Your task to perform on an android device: Open battery settings Image 0: 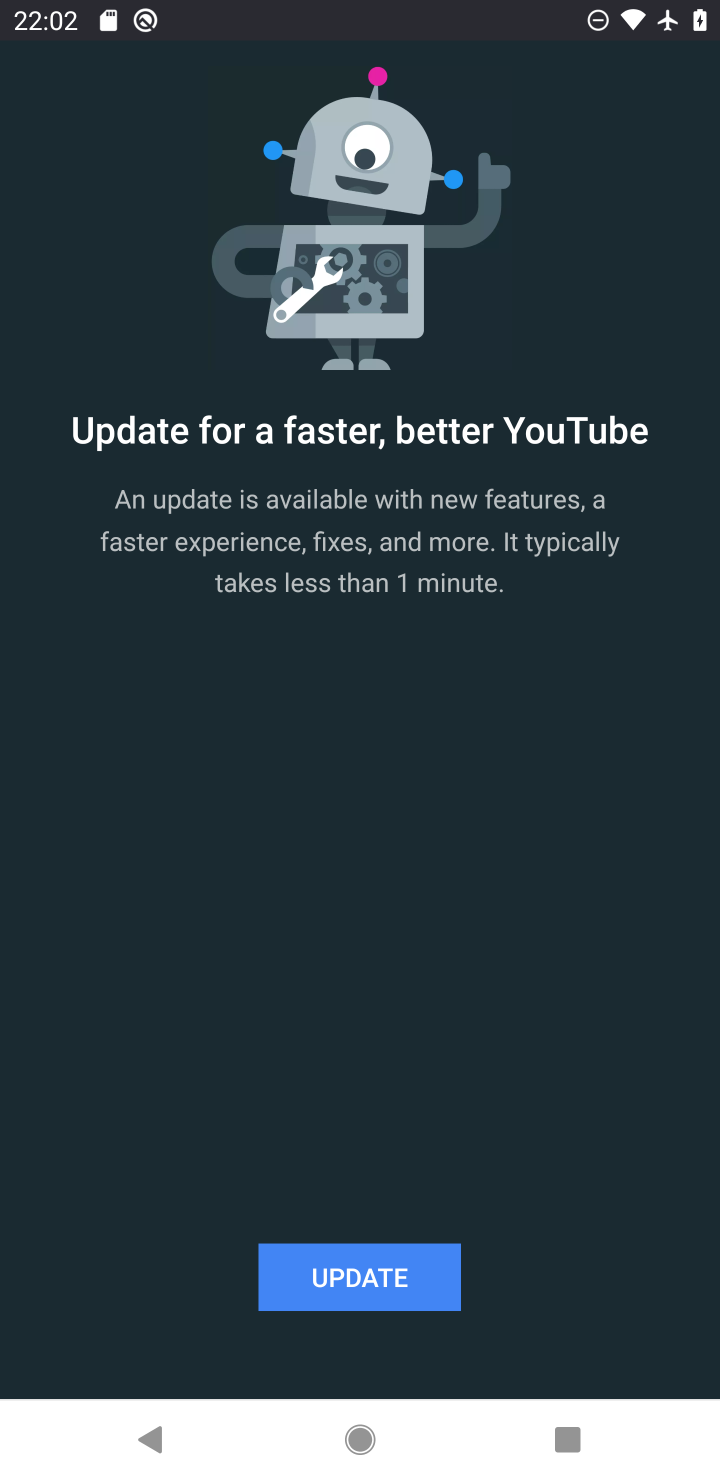
Step 0: press home button
Your task to perform on an android device: Open battery settings Image 1: 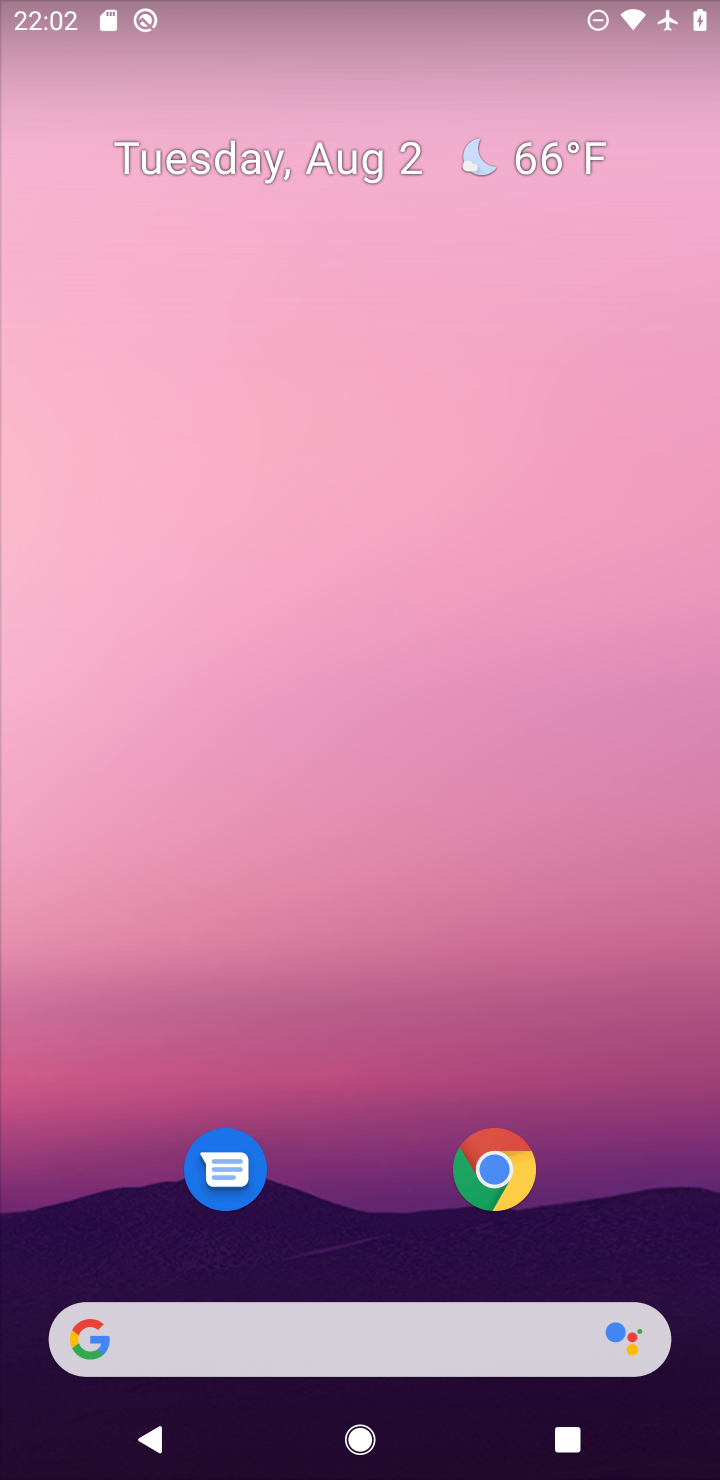
Step 1: drag from (354, 1230) to (374, 270)
Your task to perform on an android device: Open battery settings Image 2: 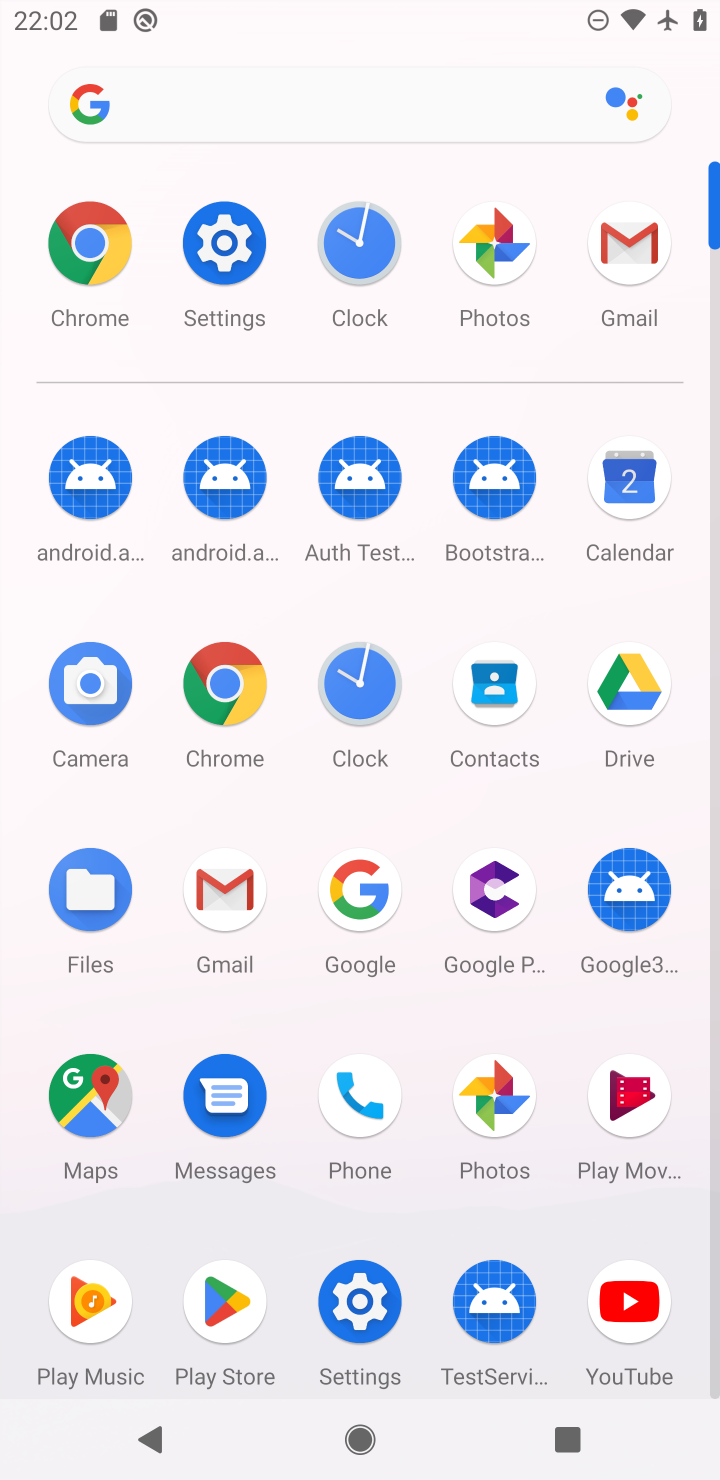
Step 2: click (222, 244)
Your task to perform on an android device: Open battery settings Image 3: 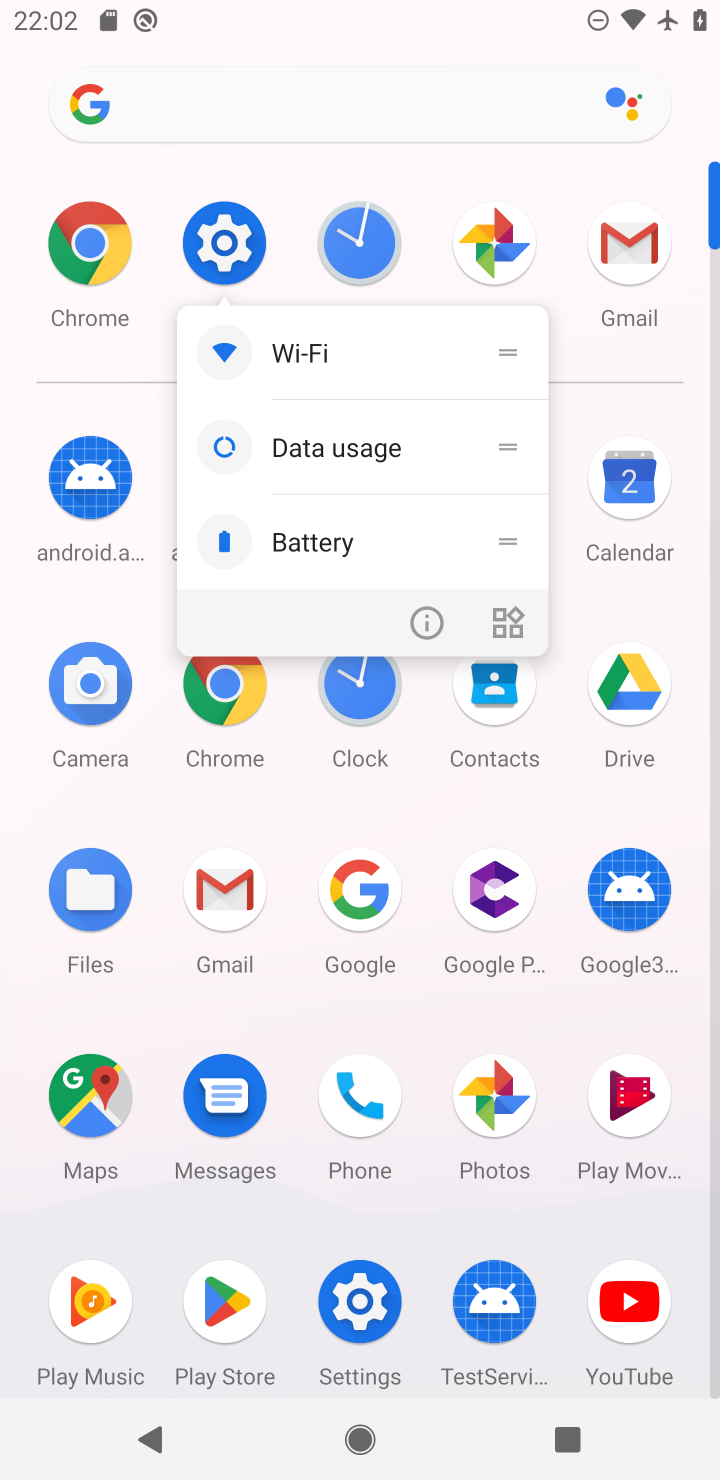
Step 3: click (224, 250)
Your task to perform on an android device: Open battery settings Image 4: 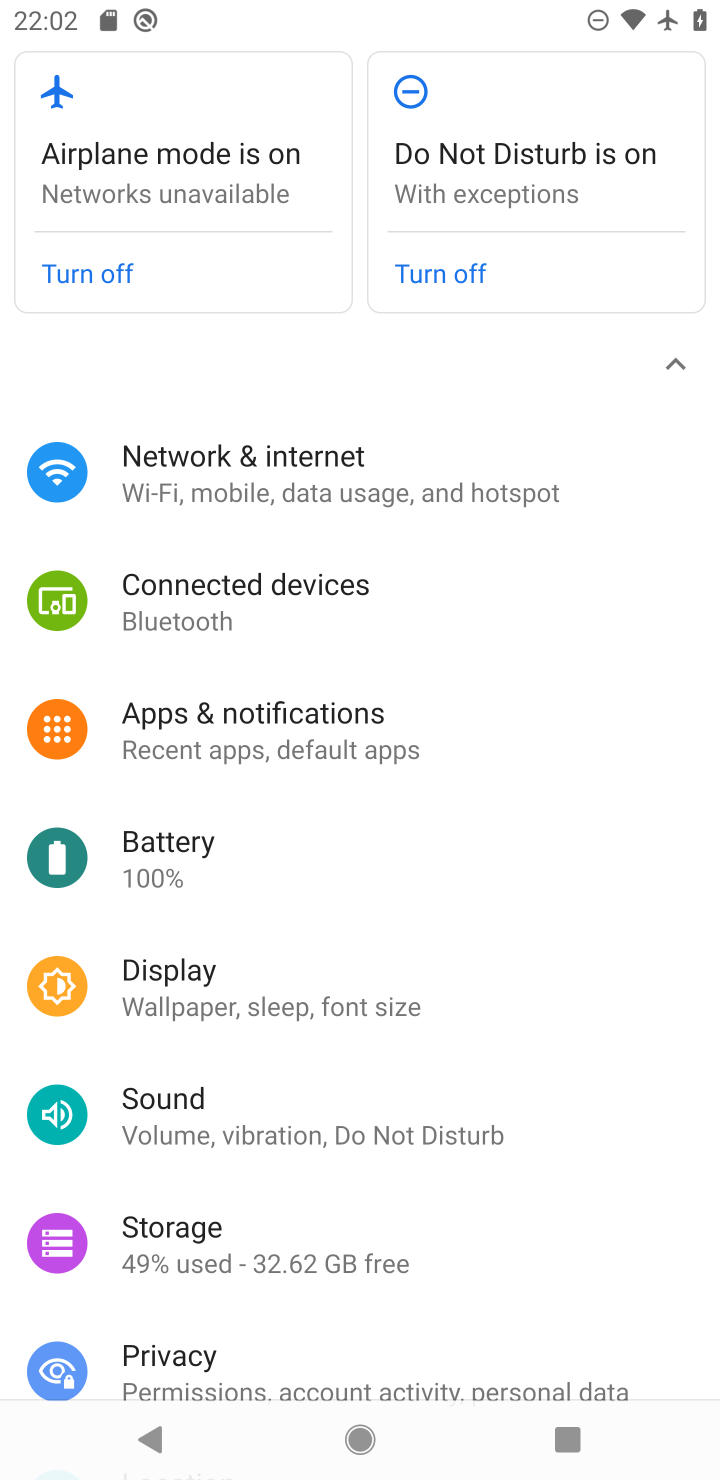
Step 4: click (162, 854)
Your task to perform on an android device: Open battery settings Image 5: 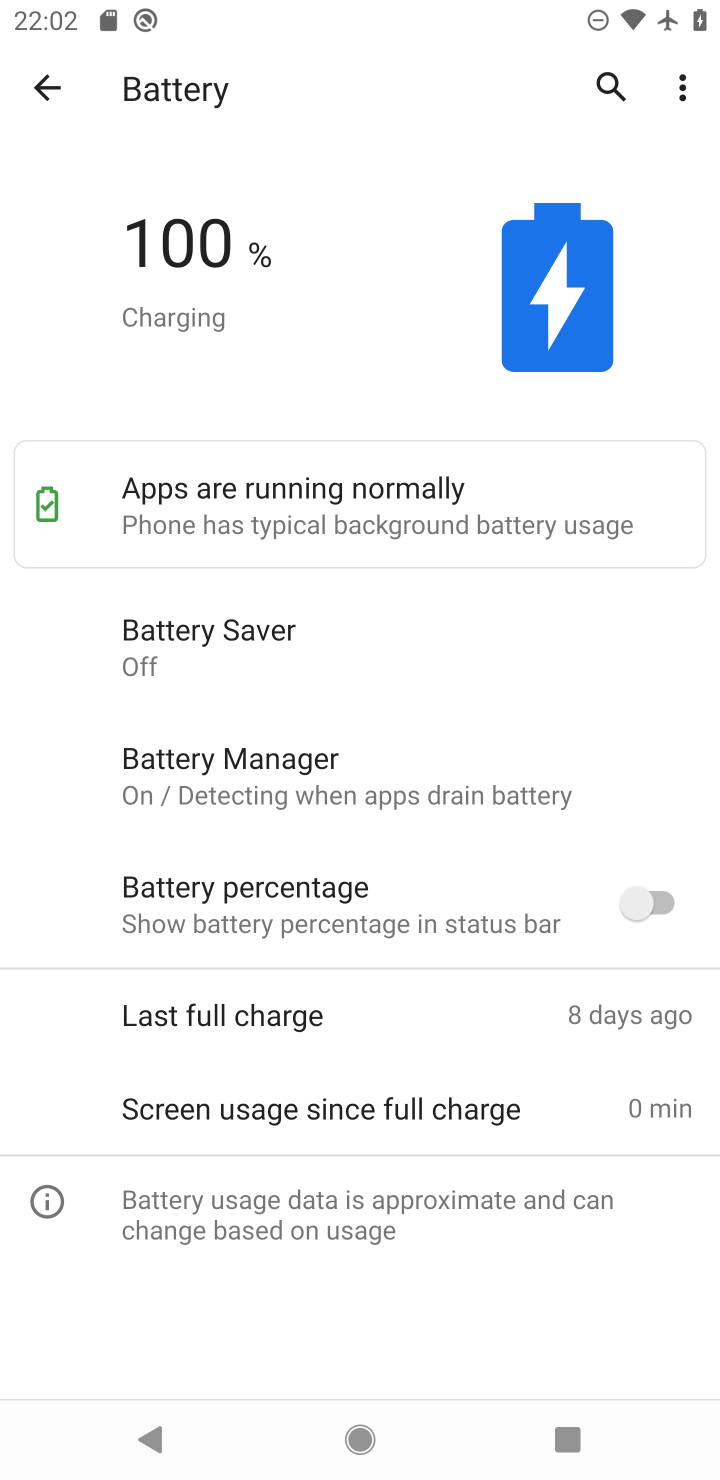
Step 5: task complete